Your task to perform on an android device: Play the last video I watched on Youtube Image 0: 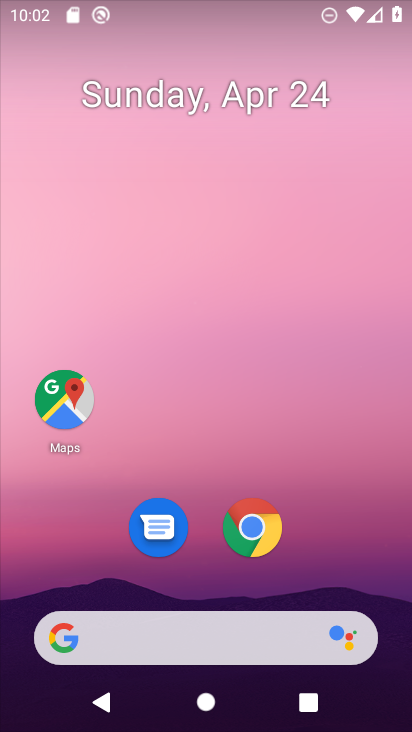
Step 0: drag from (376, 606) to (226, 18)
Your task to perform on an android device: Play the last video I watched on Youtube Image 1: 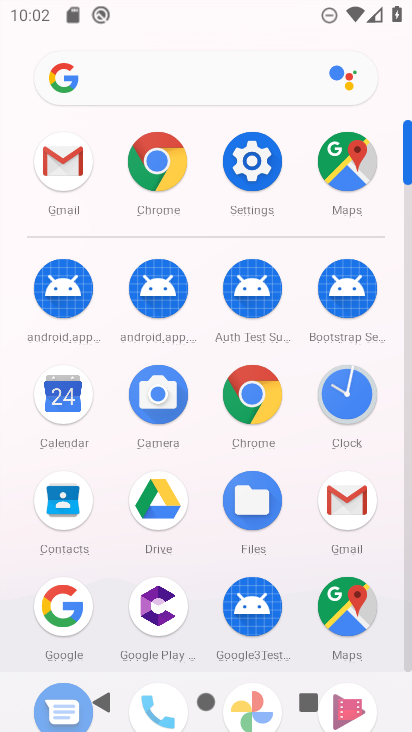
Step 1: click (404, 668)
Your task to perform on an android device: Play the last video I watched on Youtube Image 2: 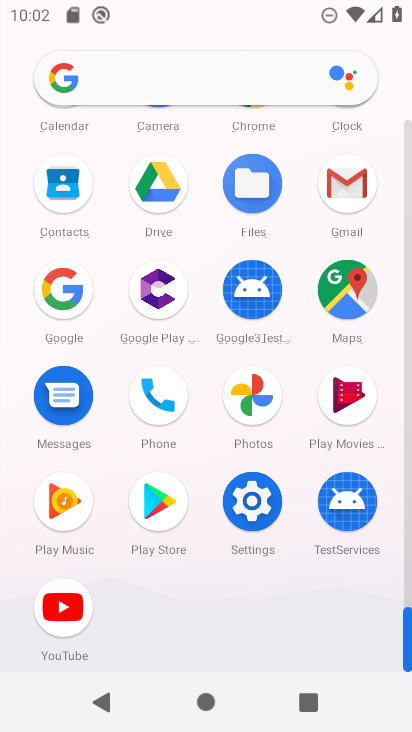
Step 2: click (55, 617)
Your task to perform on an android device: Play the last video I watched on Youtube Image 3: 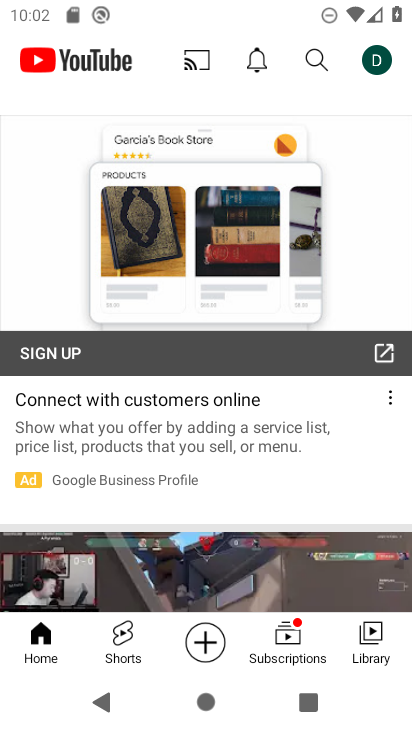
Step 3: click (359, 630)
Your task to perform on an android device: Play the last video I watched on Youtube Image 4: 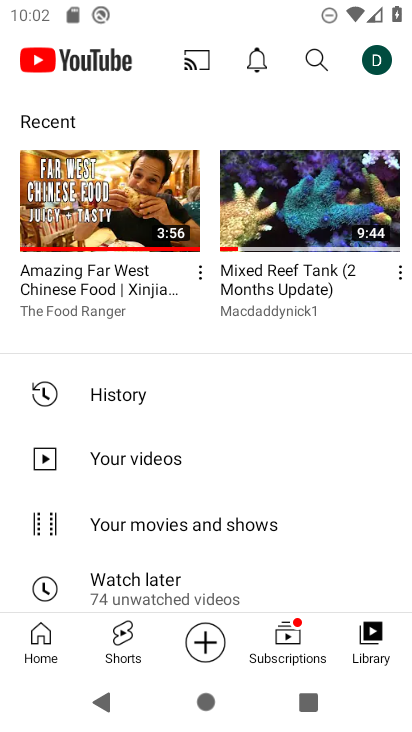
Step 4: click (88, 200)
Your task to perform on an android device: Play the last video I watched on Youtube Image 5: 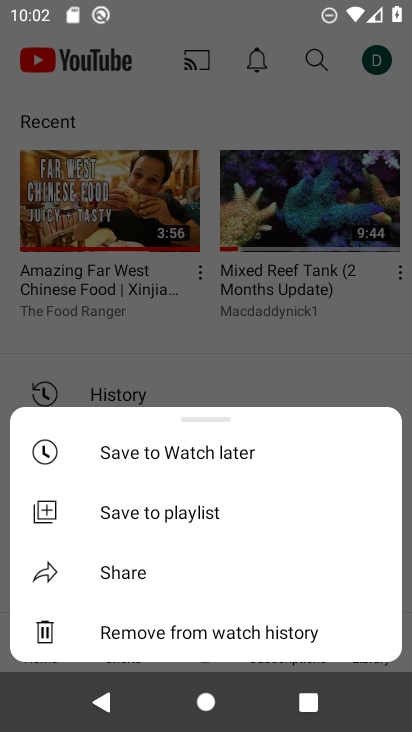
Step 5: click (85, 196)
Your task to perform on an android device: Play the last video I watched on Youtube Image 6: 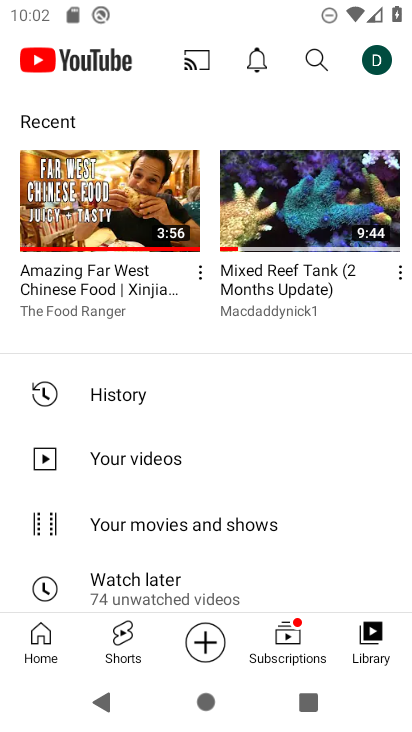
Step 6: click (85, 196)
Your task to perform on an android device: Play the last video I watched on Youtube Image 7: 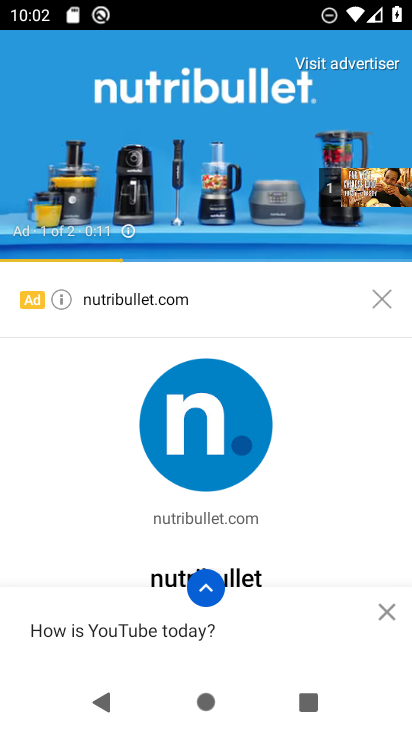
Step 7: click (367, 294)
Your task to perform on an android device: Play the last video I watched on Youtube Image 8: 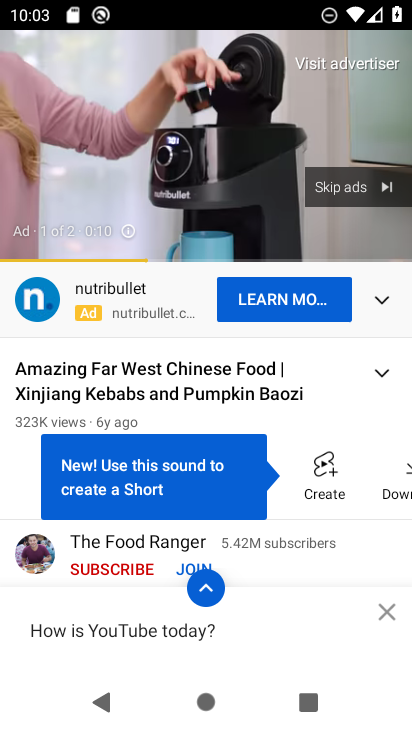
Step 8: click (337, 186)
Your task to perform on an android device: Play the last video I watched on Youtube Image 9: 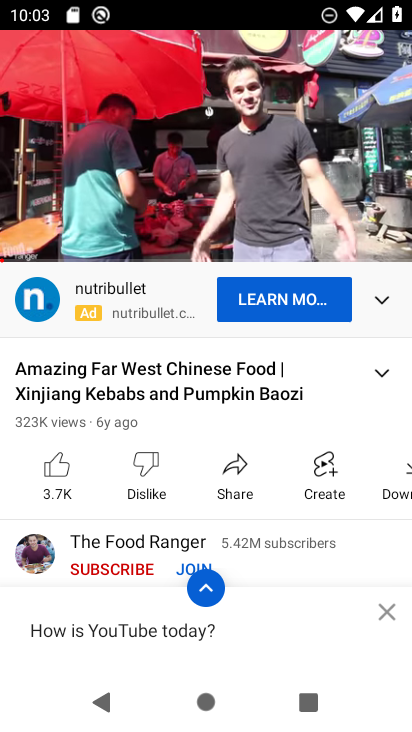
Step 9: click (200, 132)
Your task to perform on an android device: Play the last video I watched on Youtube Image 10: 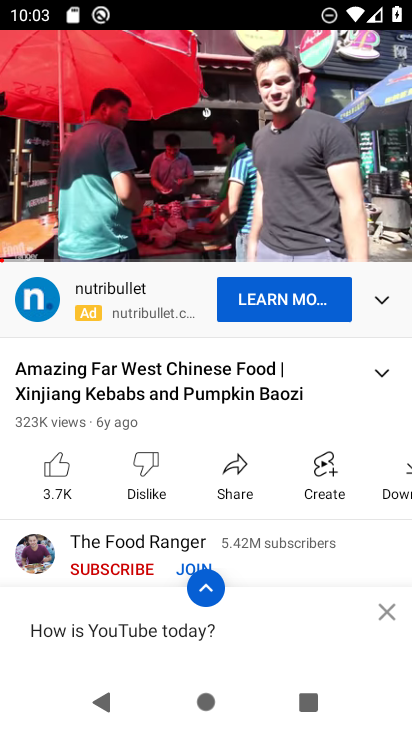
Step 10: click (231, 141)
Your task to perform on an android device: Play the last video I watched on Youtube Image 11: 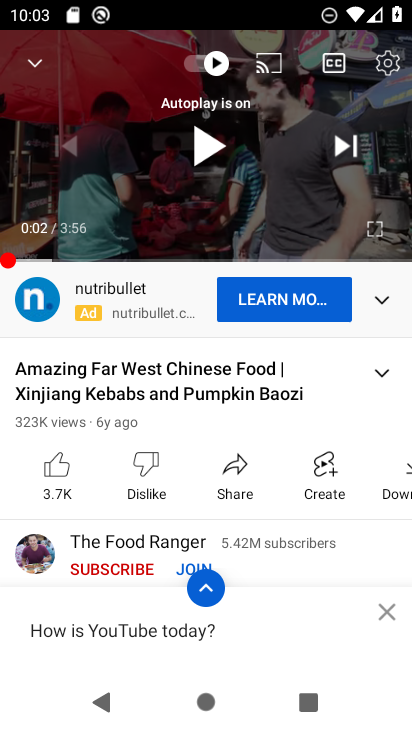
Step 11: task complete